Your task to perform on an android device: find which apps use the phone's location Image 0: 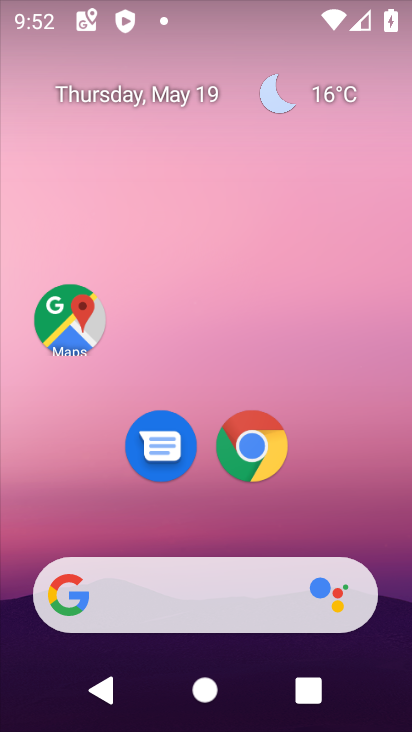
Step 0: drag from (189, 507) to (194, 97)
Your task to perform on an android device: find which apps use the phone's location Image 1: 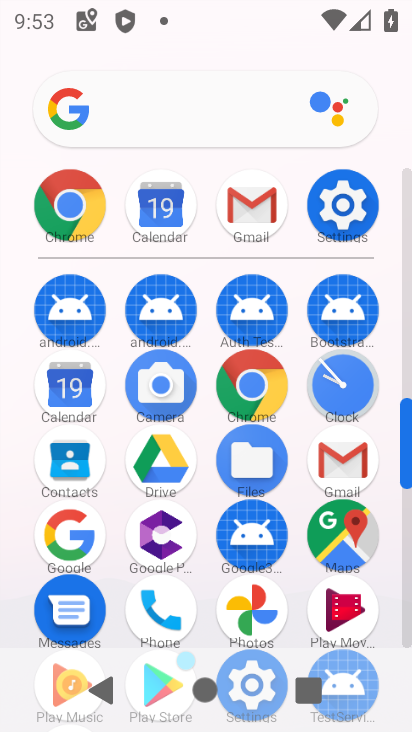
Step 1: click (342, 228)
Your task to perform on an android device: find which apps use the phone's location Image 2: 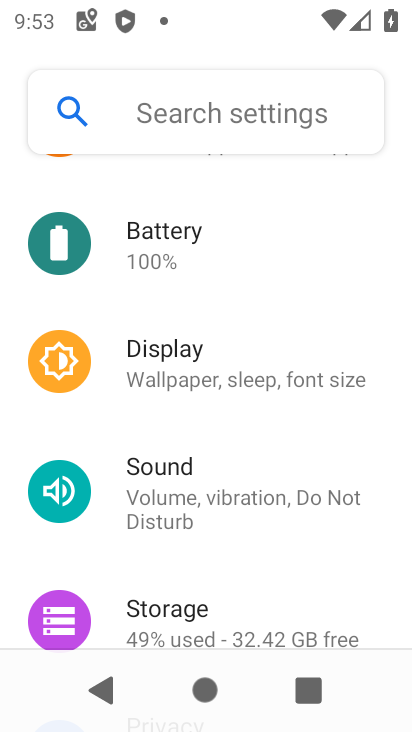
Step 2: drag from (234, 578) to (286, 249)
Your task to perform on an android device: find which apps use the phone's location Image 3: 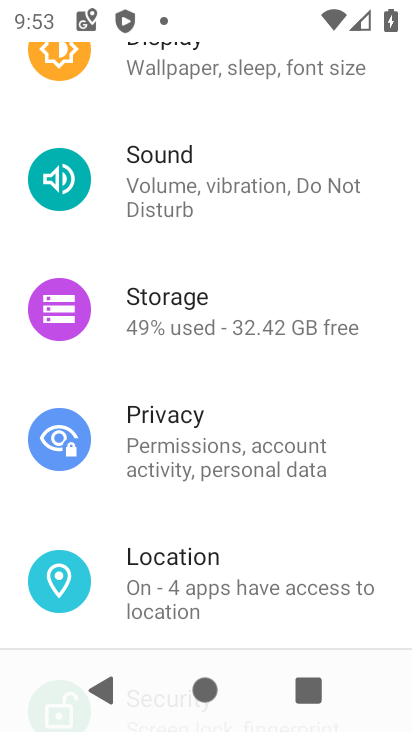
Step 3: click (205, 559)
Your task to perform on an android device: find which apps use the phone's location Image 4: 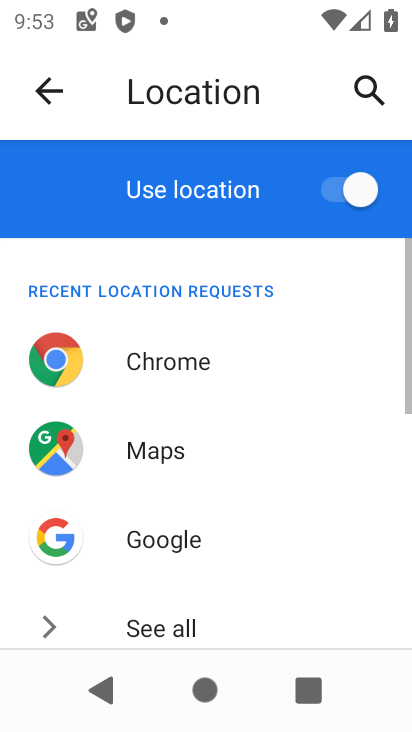
Step 4: drag from (165, 536) to (213, 224)
Your task to perform on an android device: find which apps use the phone's location Image 5: 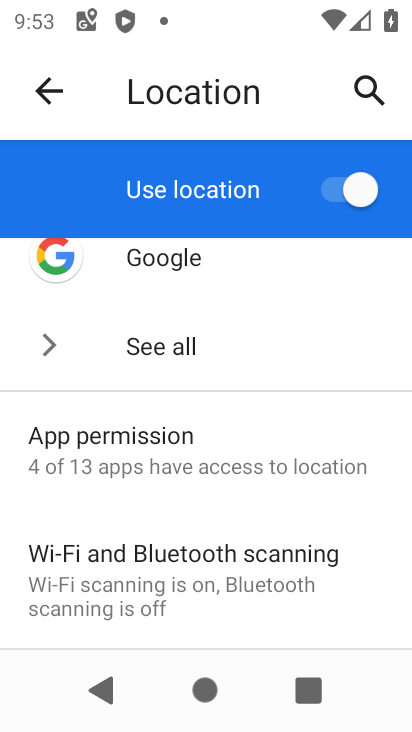
Step 5: click (203, 464)
Your task to perform on an android device: find which apps use the phone's location Image 6: 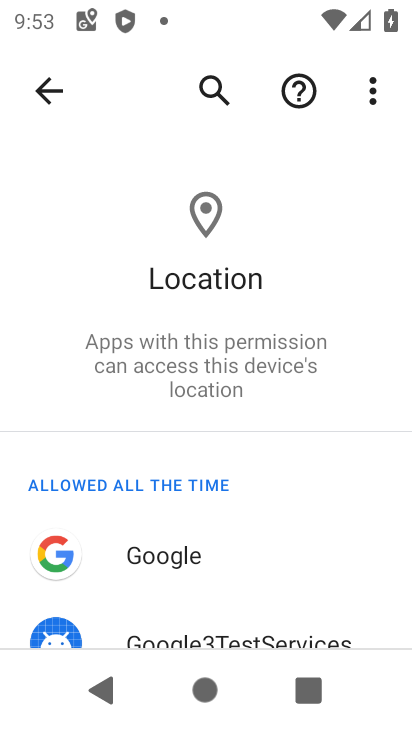
Step 6: task complete